Your task to perform on an android device: Go to Android settings Image 0: 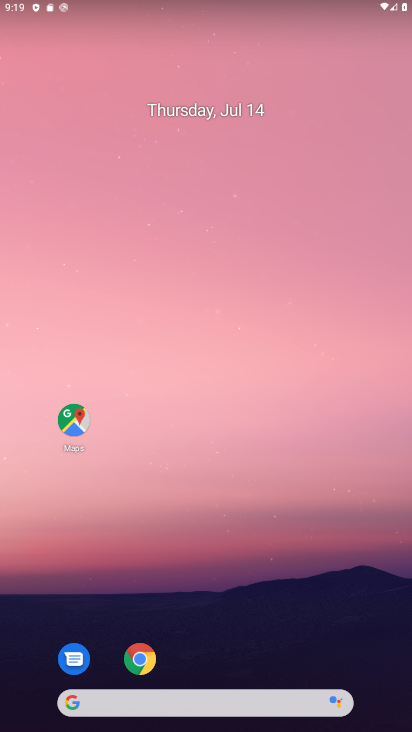
Step 0: drag from (329, 685) to (324, 10)
Your task to perform on an android device: Go to Android settings Image 1: 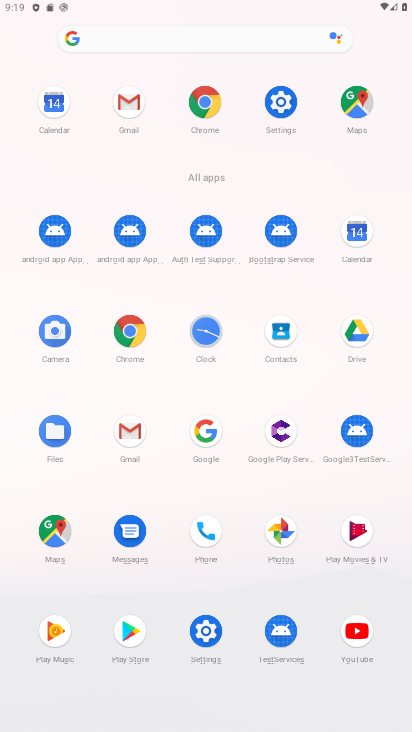
Step 1: click (285, 104)
Your task to perform on an android device: Go to Android settings Image 2: 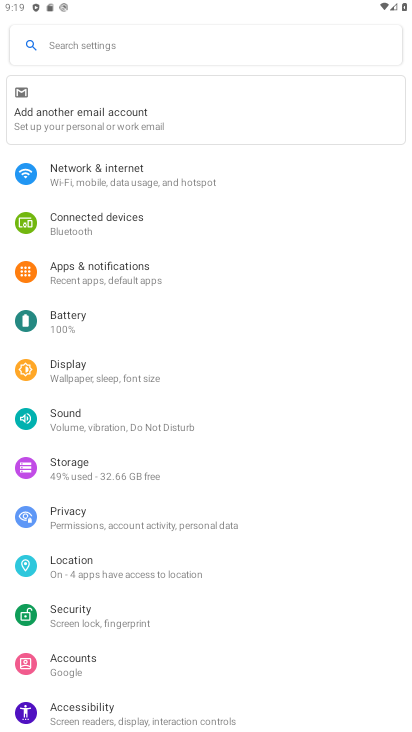
Step 2: drag from (140, 686) to (107, 92)
Your task to perform on an android device: Go to Android settings Image 3: 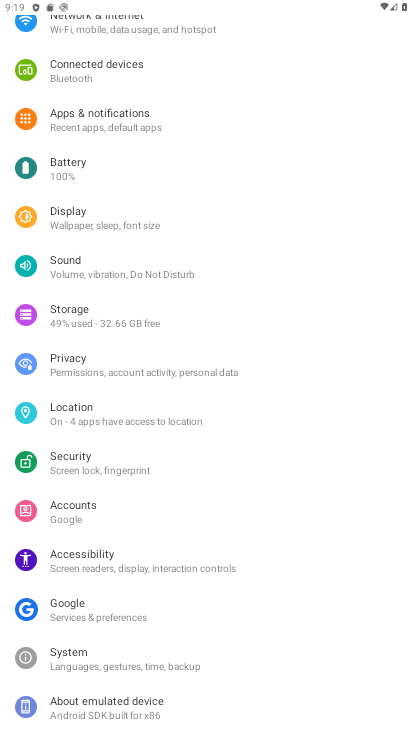
Step 3: click (164, 703)
Your task to perform on an android device: Go to Android settings Image 4: 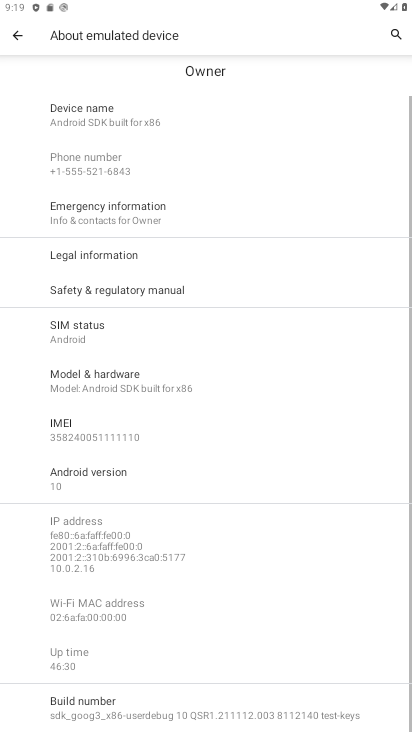
Step 4: task complete